Your task to perform on an android device: Turn on the flashlight Image 0: 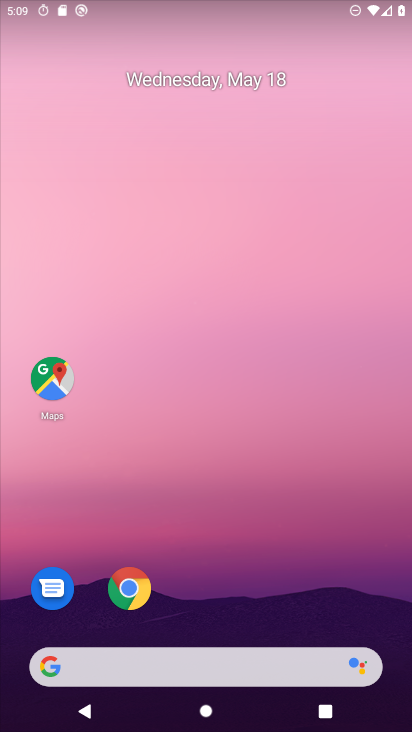
Step 0: drag from (139, 15) to (124, 406)
Your task to perform on an android device: Turn on the flashlight Image 1: 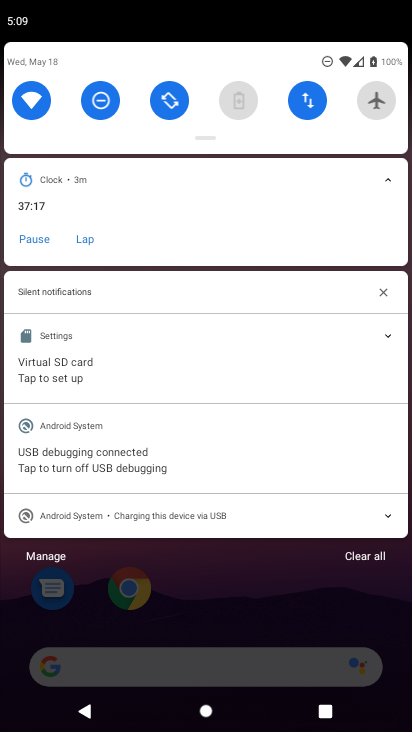
Step 1: task complete